Your task to perform on an android device: allow notifications from all sites in the chrome app Image 0: 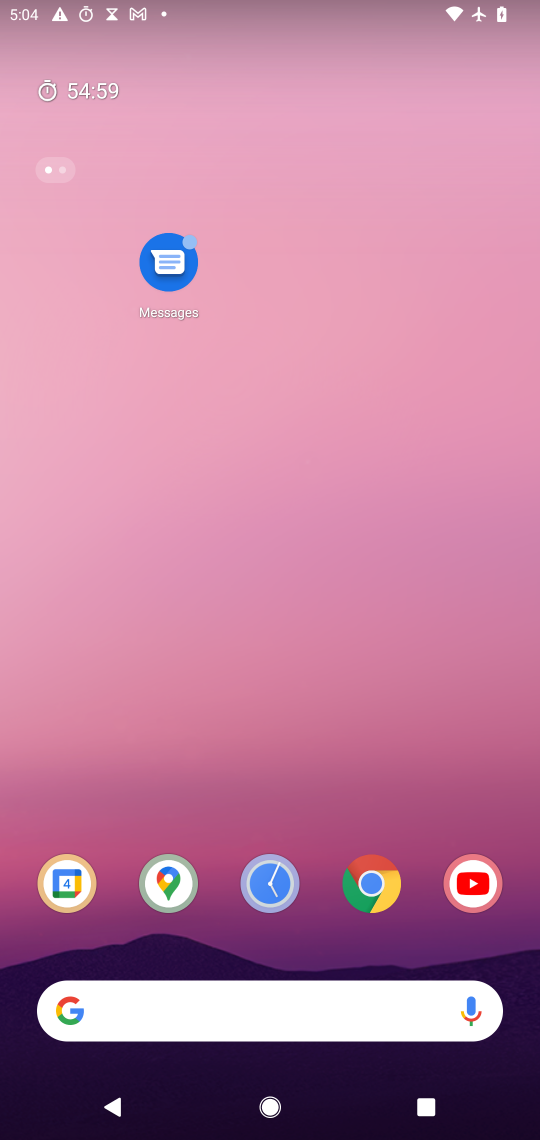
Step 0: drag from (330, 946) to (337, 24)
Your task to perform on an android device: allow notifications from all sites in the chrome app Image 1: 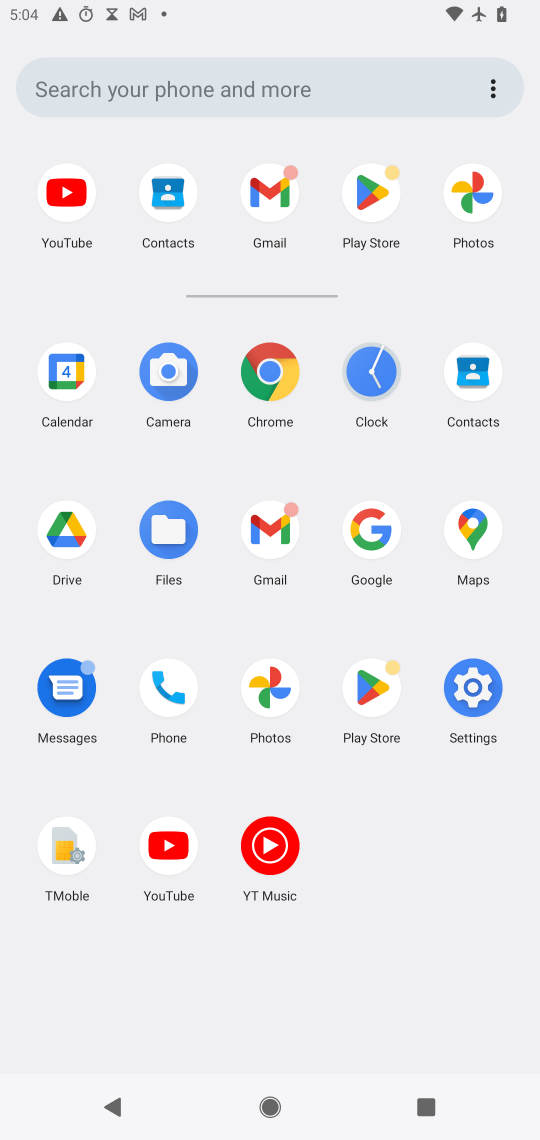
Step 1: click (276, 372)
Your task to perform on an android device: allow notifications from all sites in the chrome app Image 2: 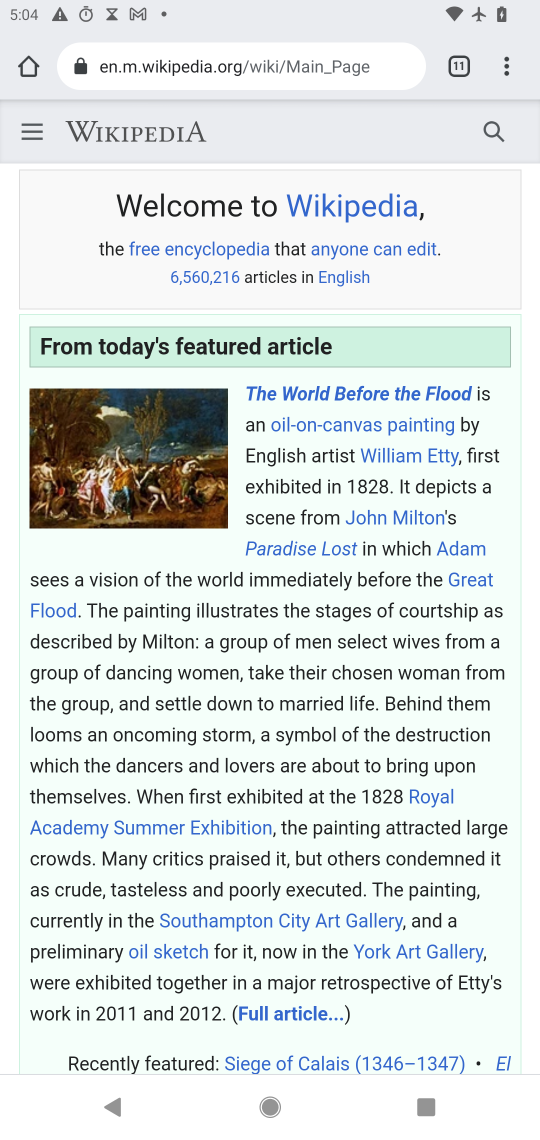
Step 2: click (505, 69)
Your task to perform on an android device: allow notifications from all sites in the chrome app Image 3: 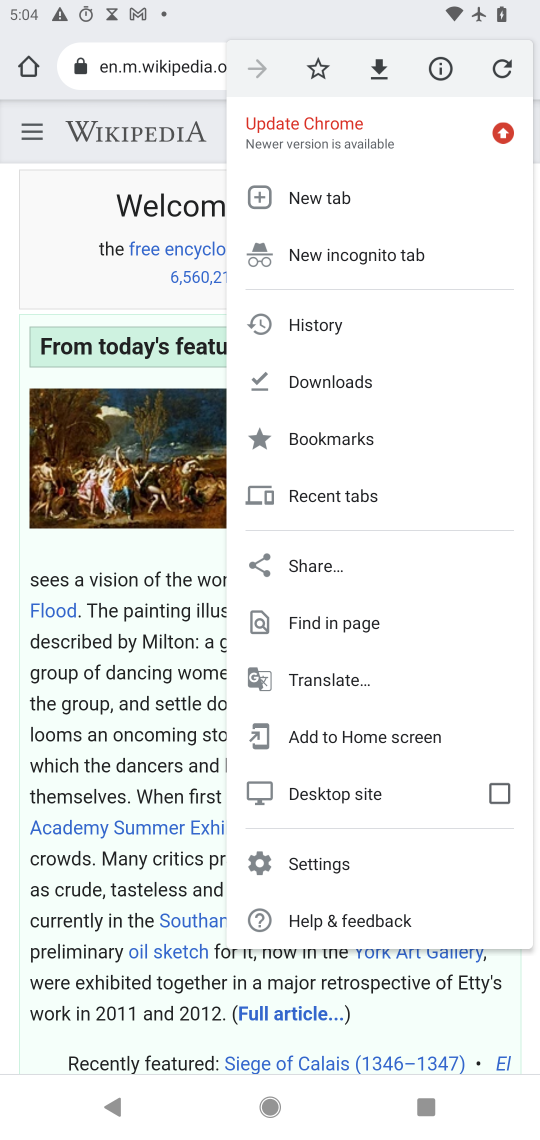
Step 3: click (320, 858)
Your task to perform on an android device: allow notifications from all sites in the chrome app Image 4: 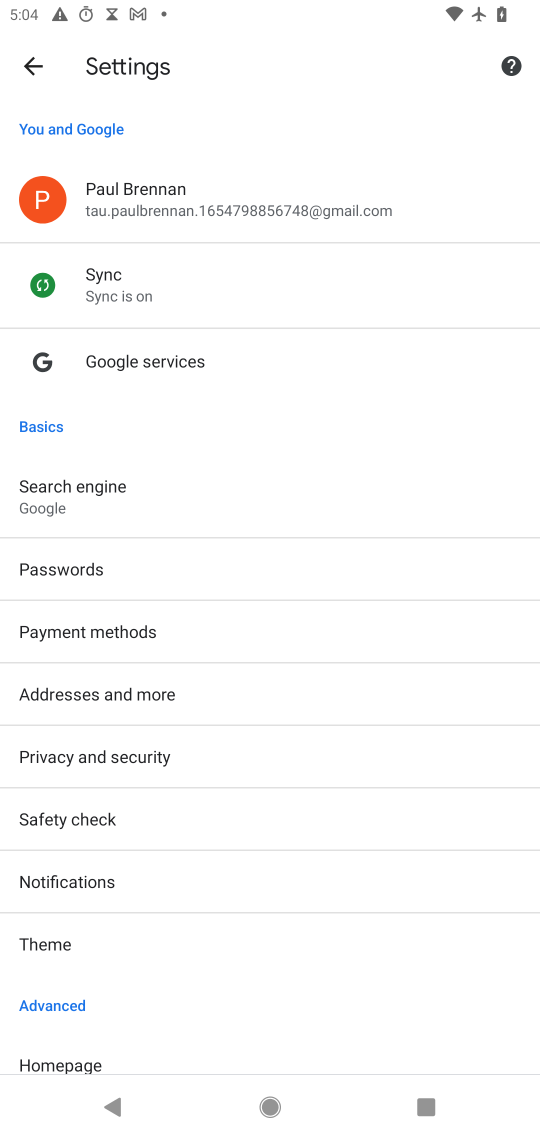
Step 4: drag from (238, 1026) to (268, 475)
Your task to perform on an android device: allow notifications from all sites in the chrome app Image 5: 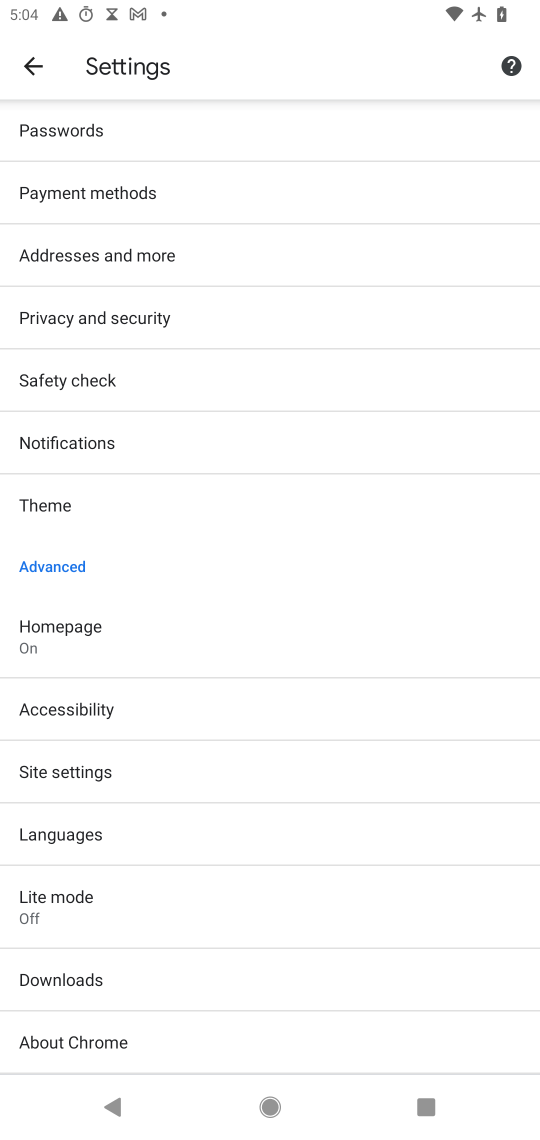
Step 5: click (72, 768)
Your task to perform on an android device: allow notifications from all sites in the chrome app Image 6: 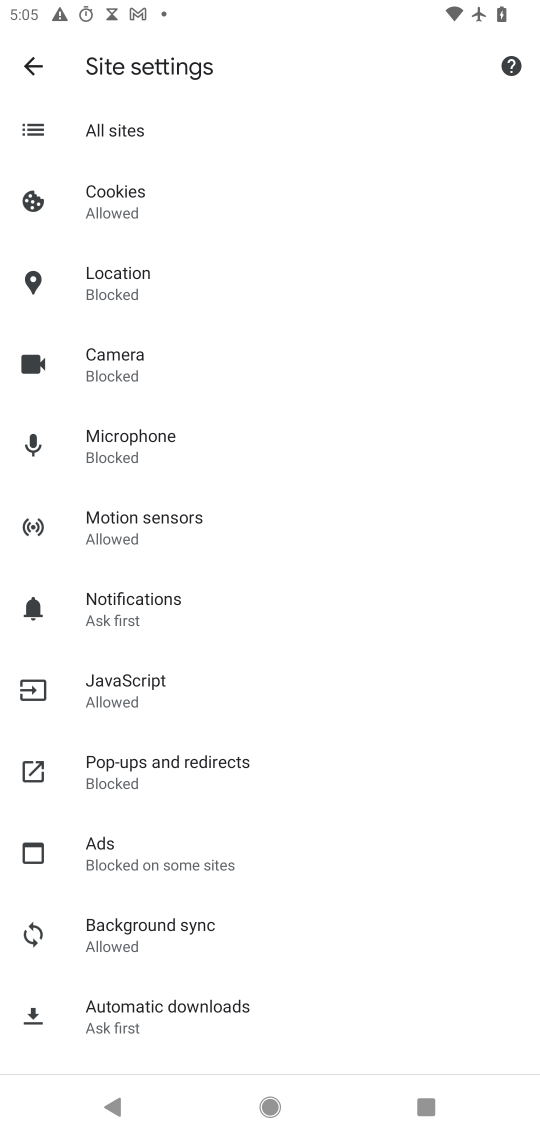
Step 6: click (129, 594)
Your task to perform on an android device: allow notifications from all sites in the chrome app Image 7: 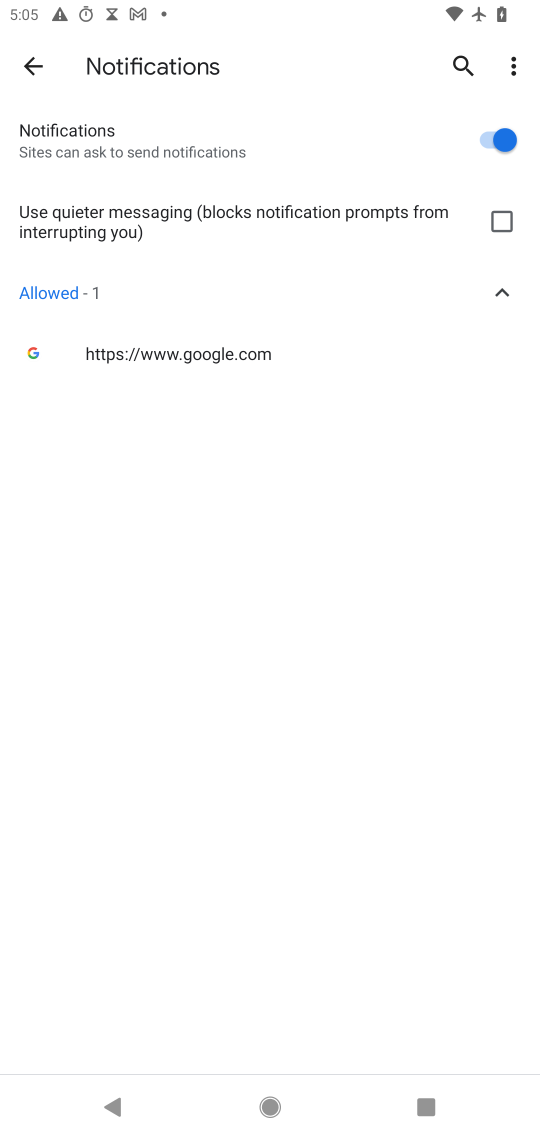
Step 7: task complete